Your task to perform on an android device: see tabs open on other devices in the chrome app Image 0: 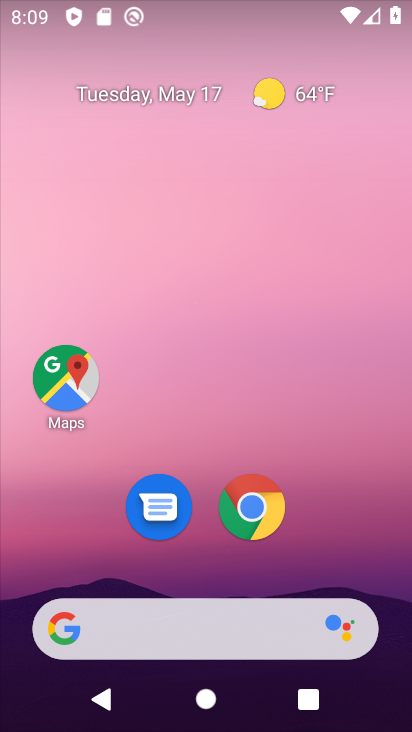
Step 0: click (253, 507)
Your task to perform on an android device: see tabs open on other devices in the chrome app Image 1: 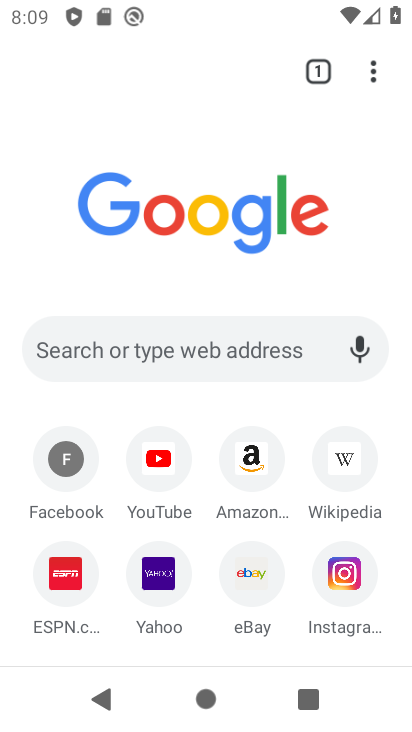
Step 1: click (373, 69)
Your task to perform on an android device: see tabs open on other devices in the chrome app Image 2: 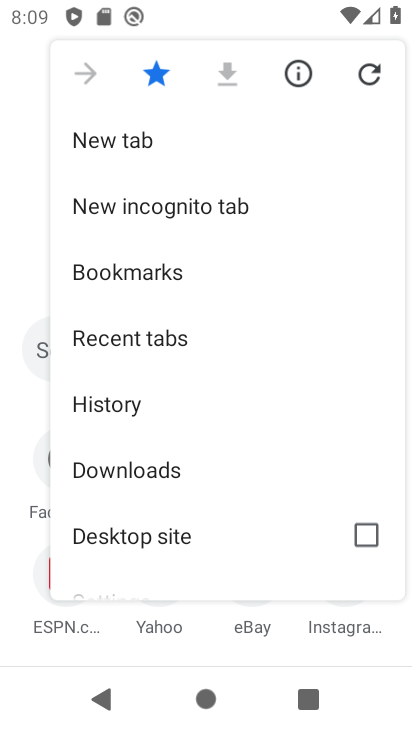
Step 2: click (158, 339)
Your task to perform on an android device: see tabs open on other devices in the chrome app Image 3: 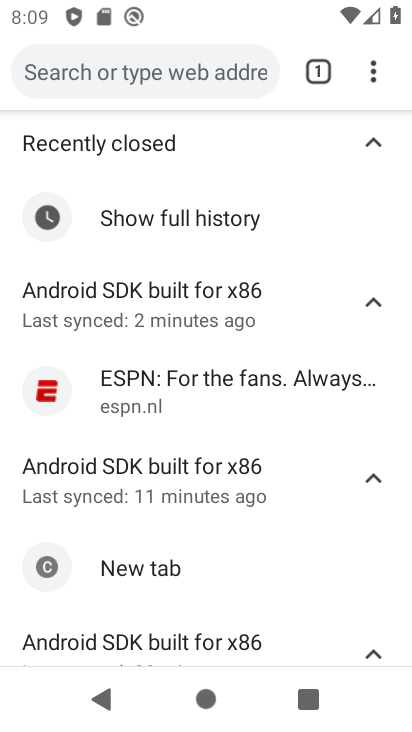
Step 3: task complete